Your task to perform on an android device: Search for Mexican restaurants on Maps Image 0: 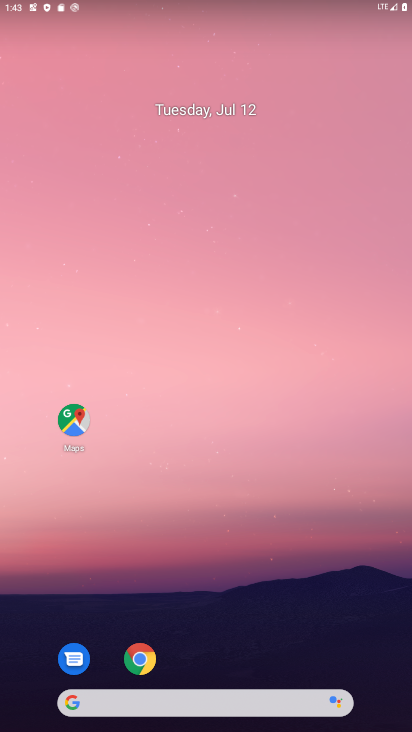
Step 0: click (207, 722)
Your task to perform on an android device: Search for Mexican restaurants on Maps Image 1: 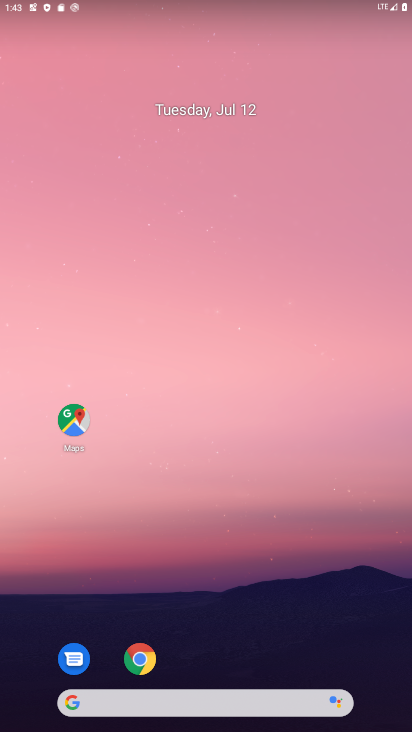
Step 1: drag from (221, 307) to (217, 127)
Your task to perform on an android device: Search for Mexican restaurants on Maps Image 2: 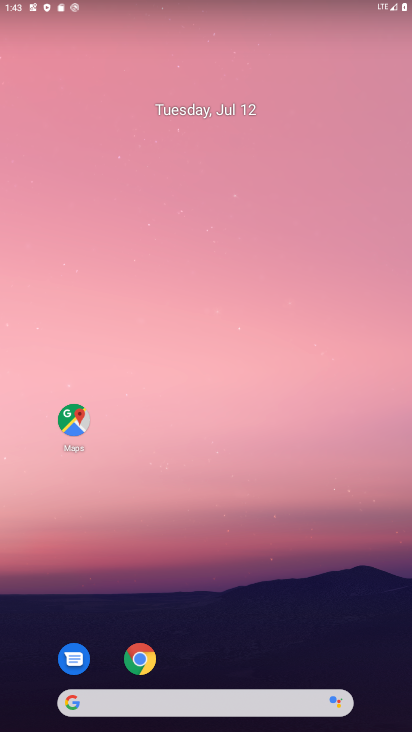
Step 2: drag from (238, 727) to (232, 206)
Your task to perform on an android device: Search for Mexican restaurants on Maps Image 3: 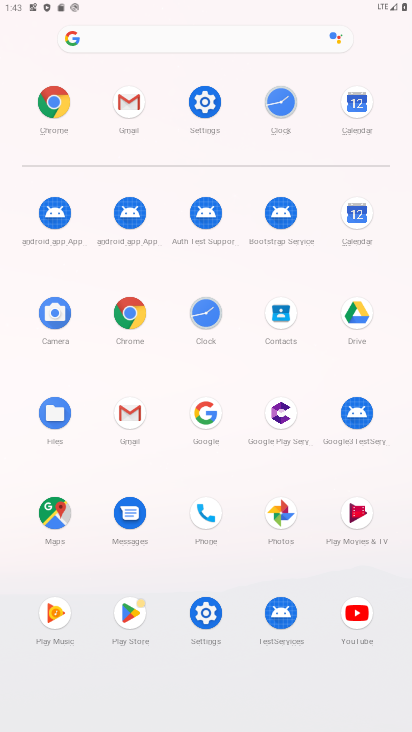
Step 3: click (51, 509)
Your task to perform on an android device: Search for Mexican restaurants on Maps Image 4: 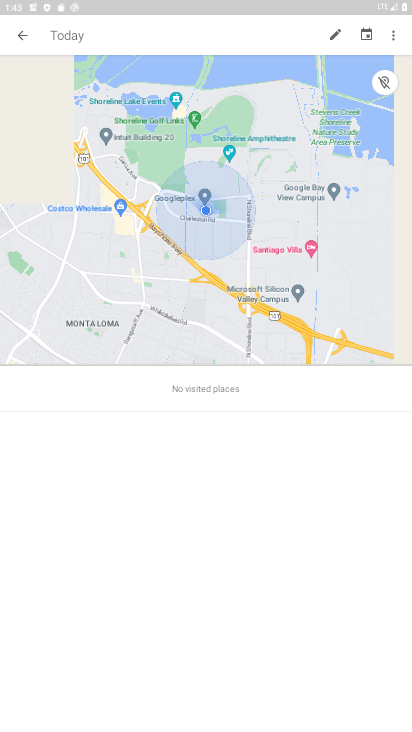
Step 4: click (19, 30)
Your task to perform on an android device: Search for Mexican restaurants on Maps Image 5: 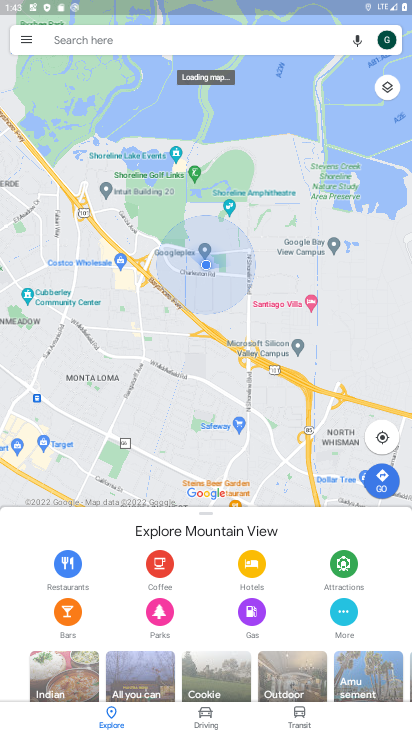
Step 5: click (134, 37)
Your task to perform on an android device: Search for Mexican restaurants on Maps Image 6: 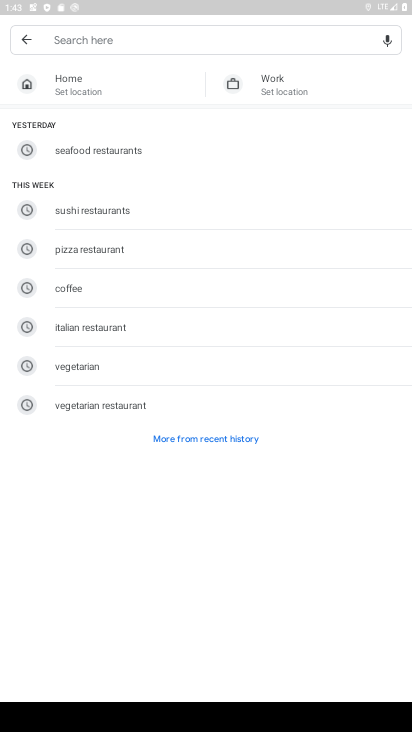
Step 6: type "Mexican restaurants"
Your task to perform on an android device: Search for Mexican restaurants on Maps Image 7: 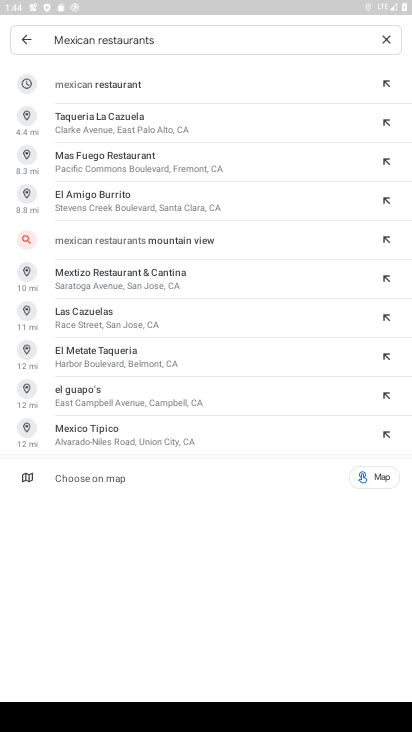
Step 7: click (107, 86)
Your task to perform on an android device: Search for Mexican restaurants on Maps Image 8: 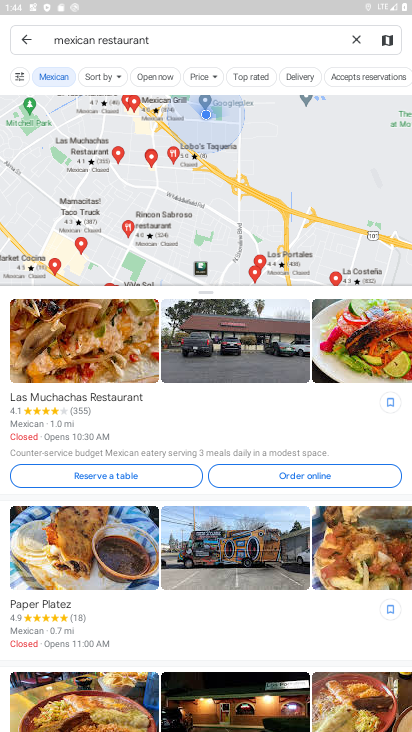
Step 8: task complete